Your task to perform on an android device: change the clock display to show seconds Image 0: 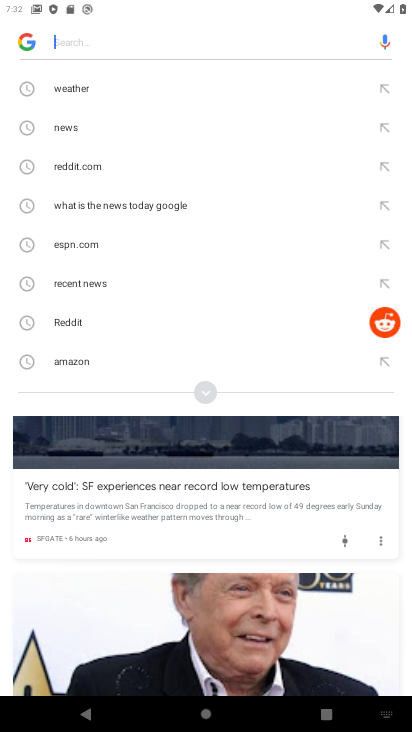
Step 0: press home button
Your task to perform on an android device: change the clock display to show seconds Image 1: 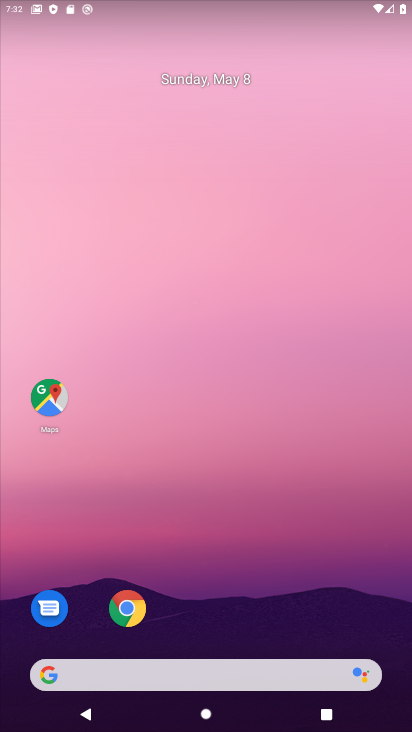
Step 1: drag from (212, 616) to (284, 208)
Your task to perform on an android device: change the clock display to show seconds Image 2: 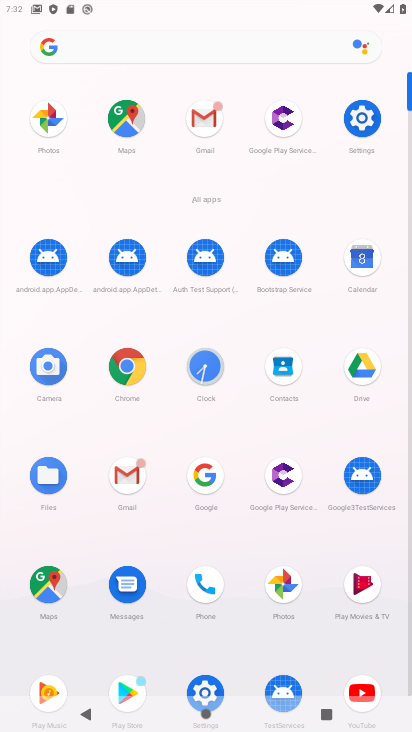
Step 2: click (198, 365)
Your task to perform on an android device: change the clock display to show seconds Image 3: 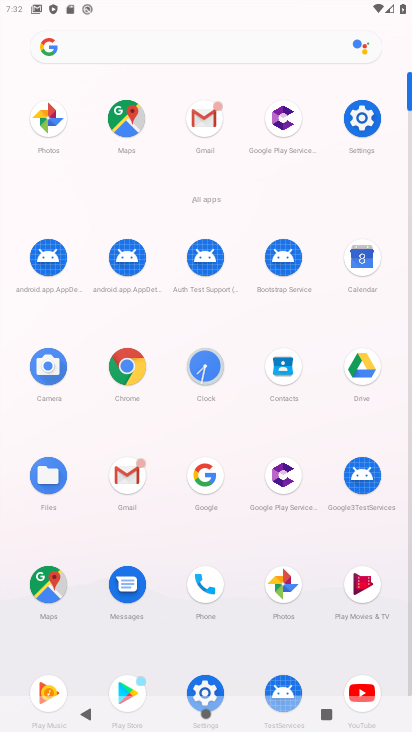
Step 3: click (206, 365)
Your task to perform on an android device: change the clock display to show seconds Image 4: 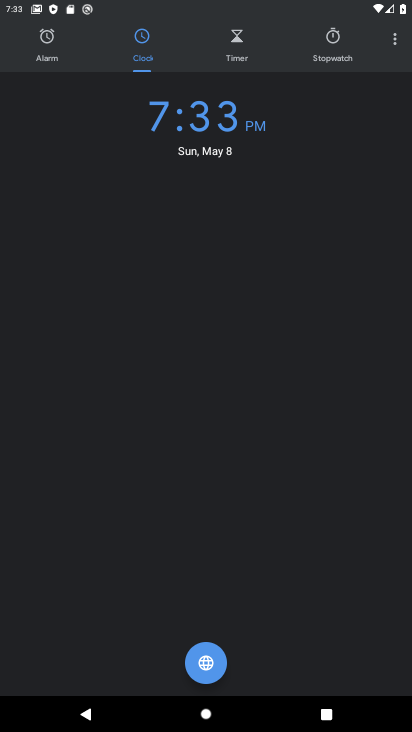
Step 4: click (392, 42)
Your task to perform on an android device: change the clock display to show seconds Image 5: 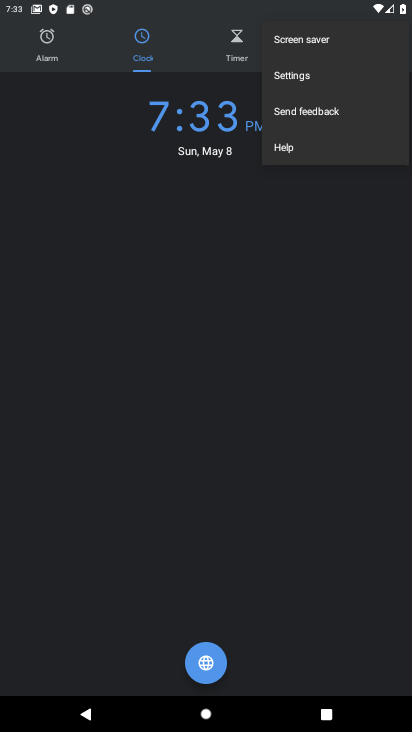
Step 5: click (320, 78)
Your task to perform on an android device: change the clock display to show seconds Image 6: 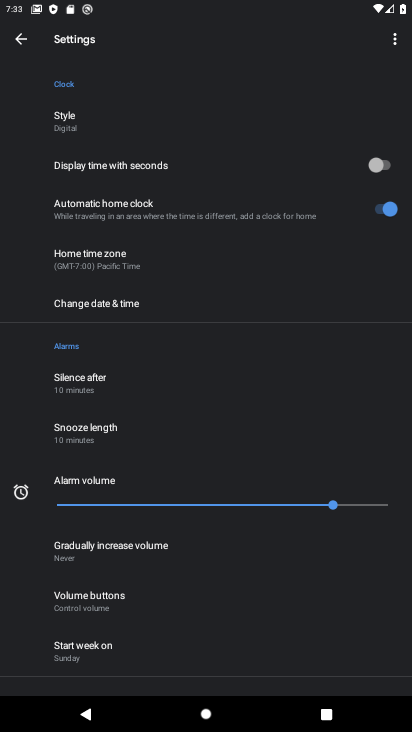
Step 6: click (388, 158)
Your task to perform on an android device: change the clock display to show seconds Image 7: 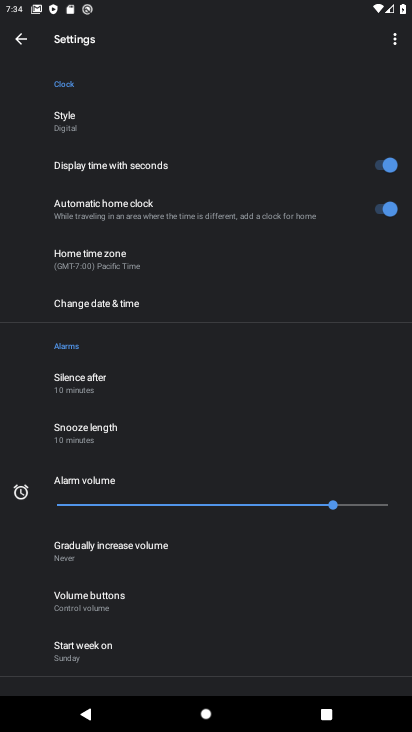
Step 7: task complete